Your task to perform on an android device: toggle airplane mode Image 0: 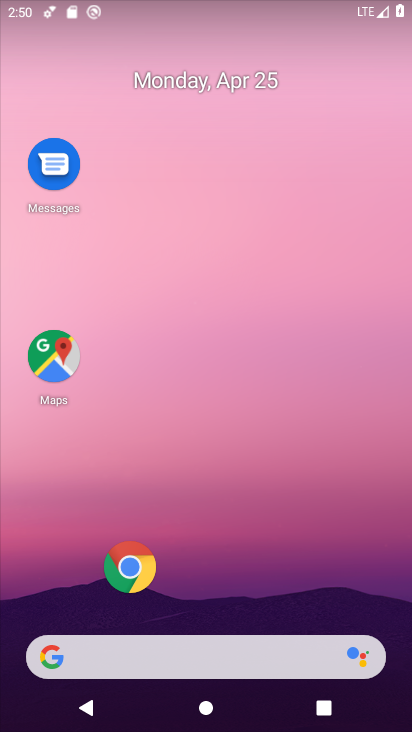
Step 0: drag from (260, 514) to (265, 141)
Your task to perform on an android device: toggle airplane mode Image 1: 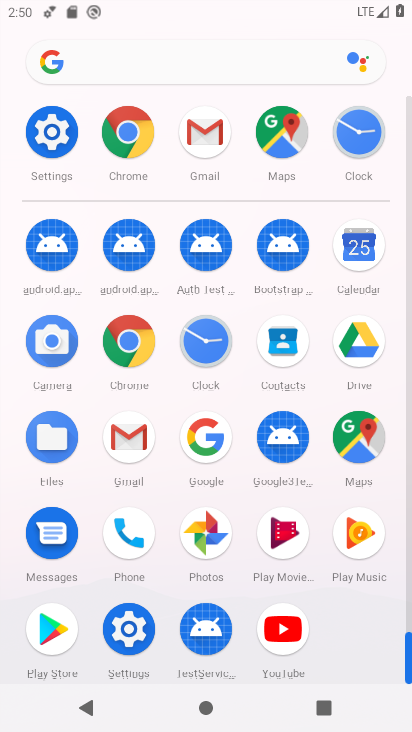
Step 1: click (51, 138)
Your task to perform on an android device: toggle airplane mode Image 2: 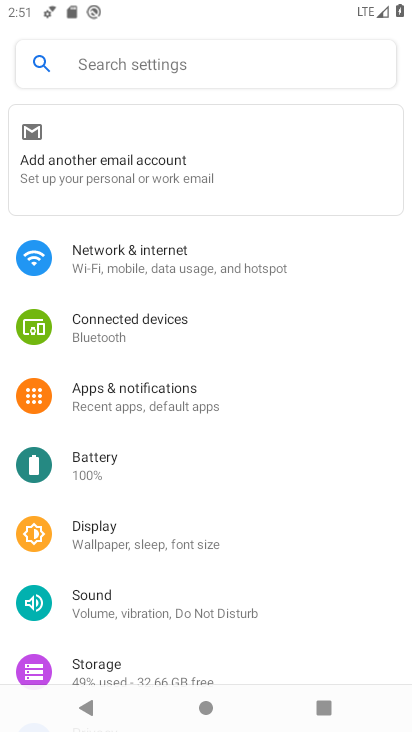
Step 2: click (182, 254)
Your task to perform on an android device: toggle airplane mode Image 3: 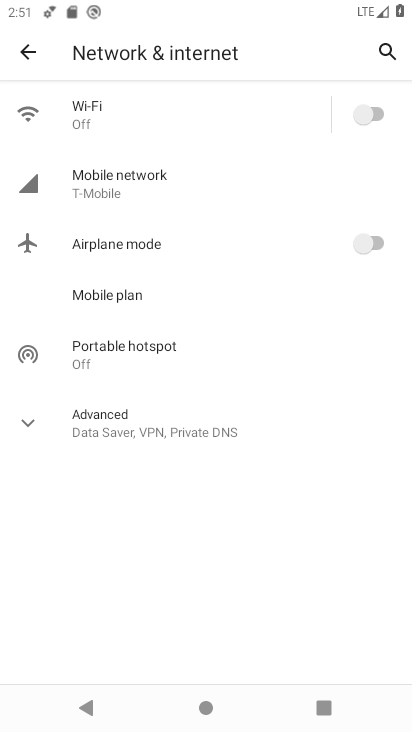
Step 3: click (194, 257)
Your task to perform on an android device: toggle airplane mode Image 4: 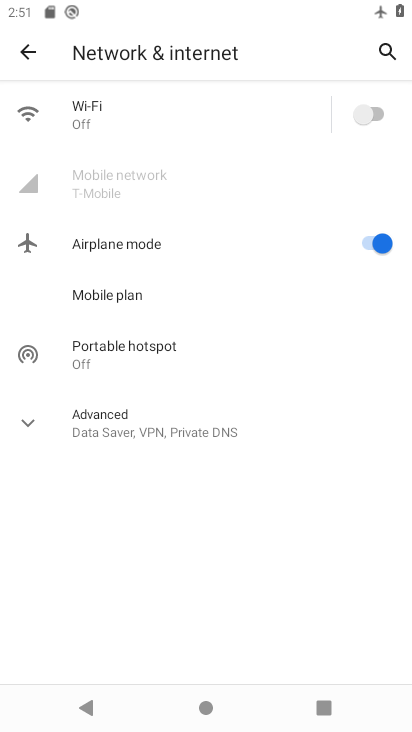
Step 4: task complete